Your task to perform on an android device: check battery use Image 0: 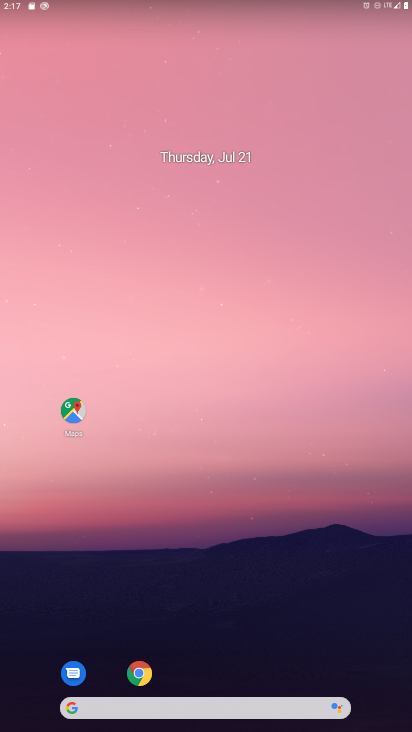
Step 0: drag from (237, 684) to (229, 86)
Your task to perform on an android device: check battery use Image 1: 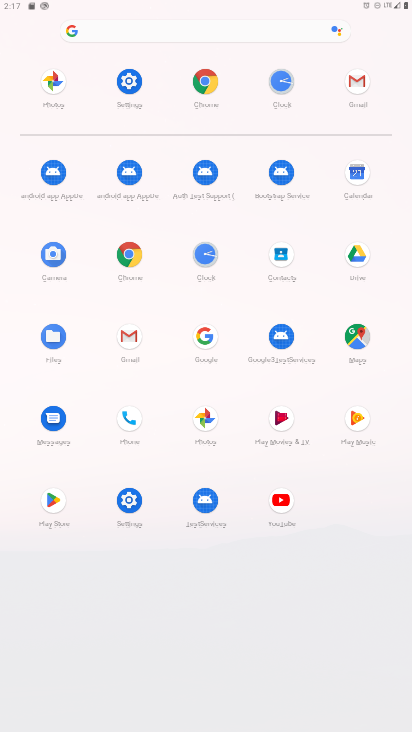
Step 1: click (128, 73)
Your task to perform on an android device: check battery use Image 2: 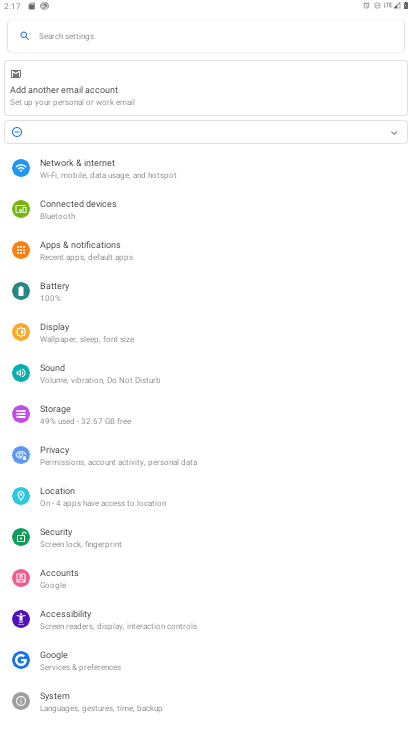
Step 2: click (63, 290)
Your task to perform on an android device: check battery use Image 3: 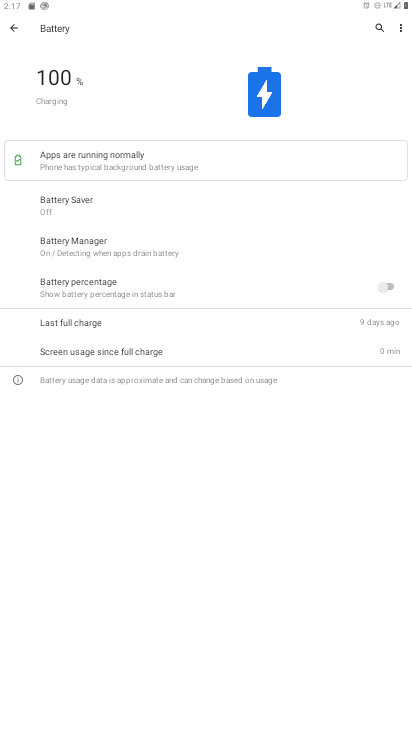
Step 3: task complete